Your task to perform on an android device: see tabs open on other devices in the chrome app Image 0: 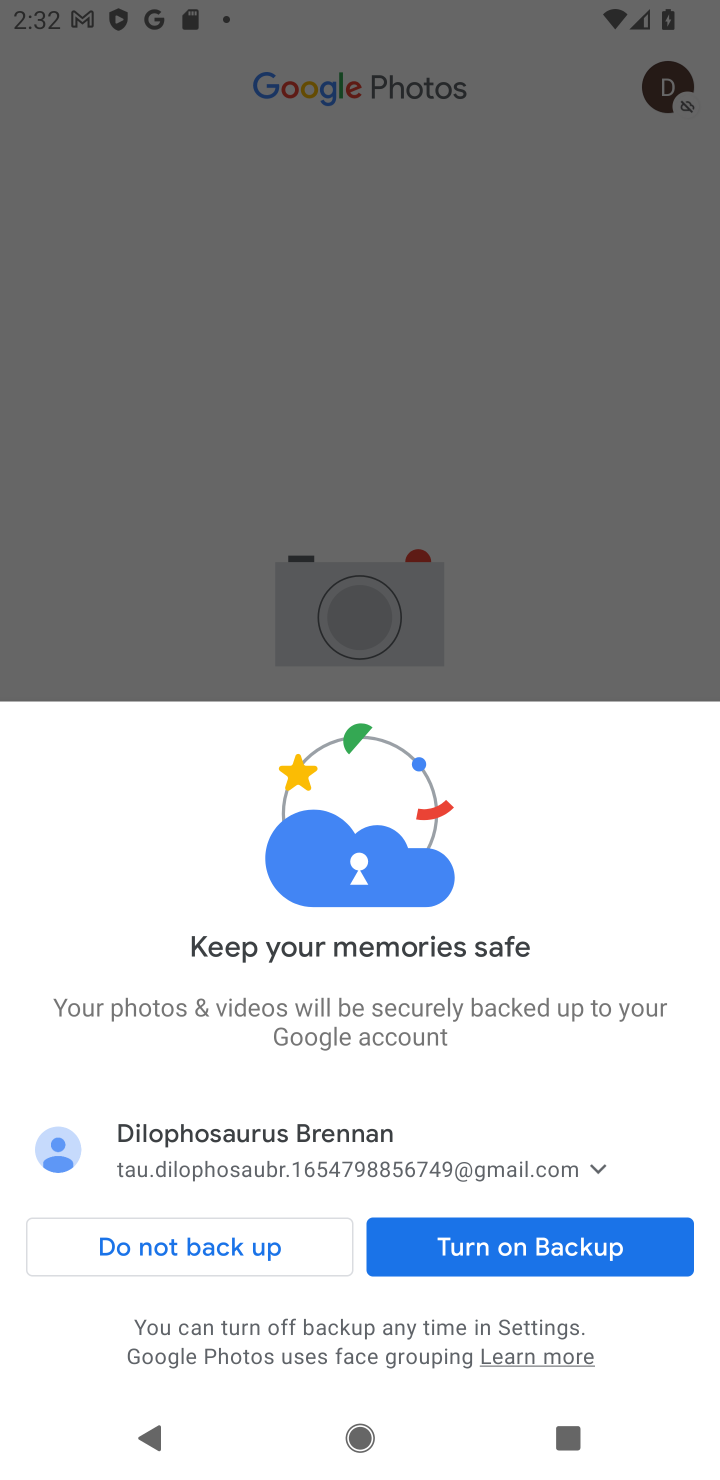
Step 0: press home button
Your task to perform on an android device: see tabs open on other devices in the chrome app Image 1: 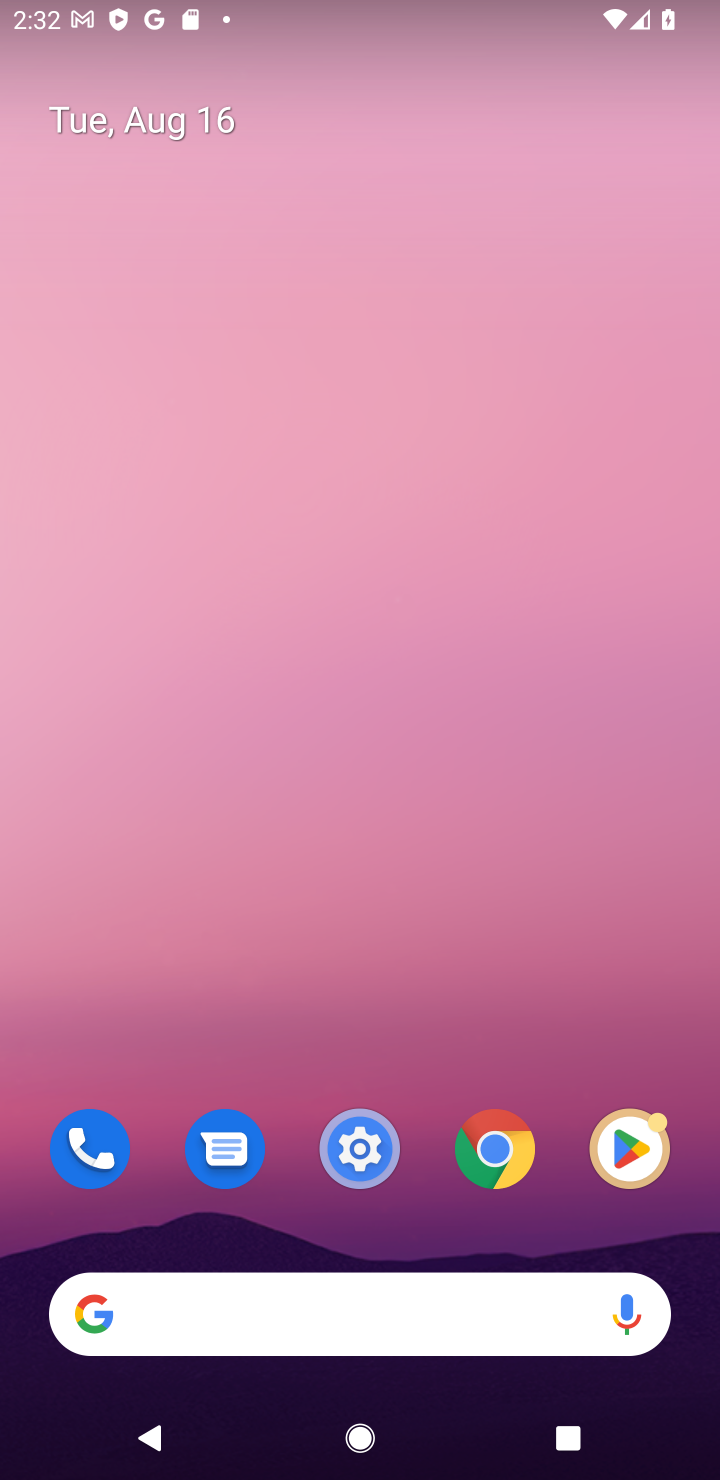
Step 1: click (502, 1143)
Your task to perform on an android device: see tabs open on other devices in the chrome app Image 2: 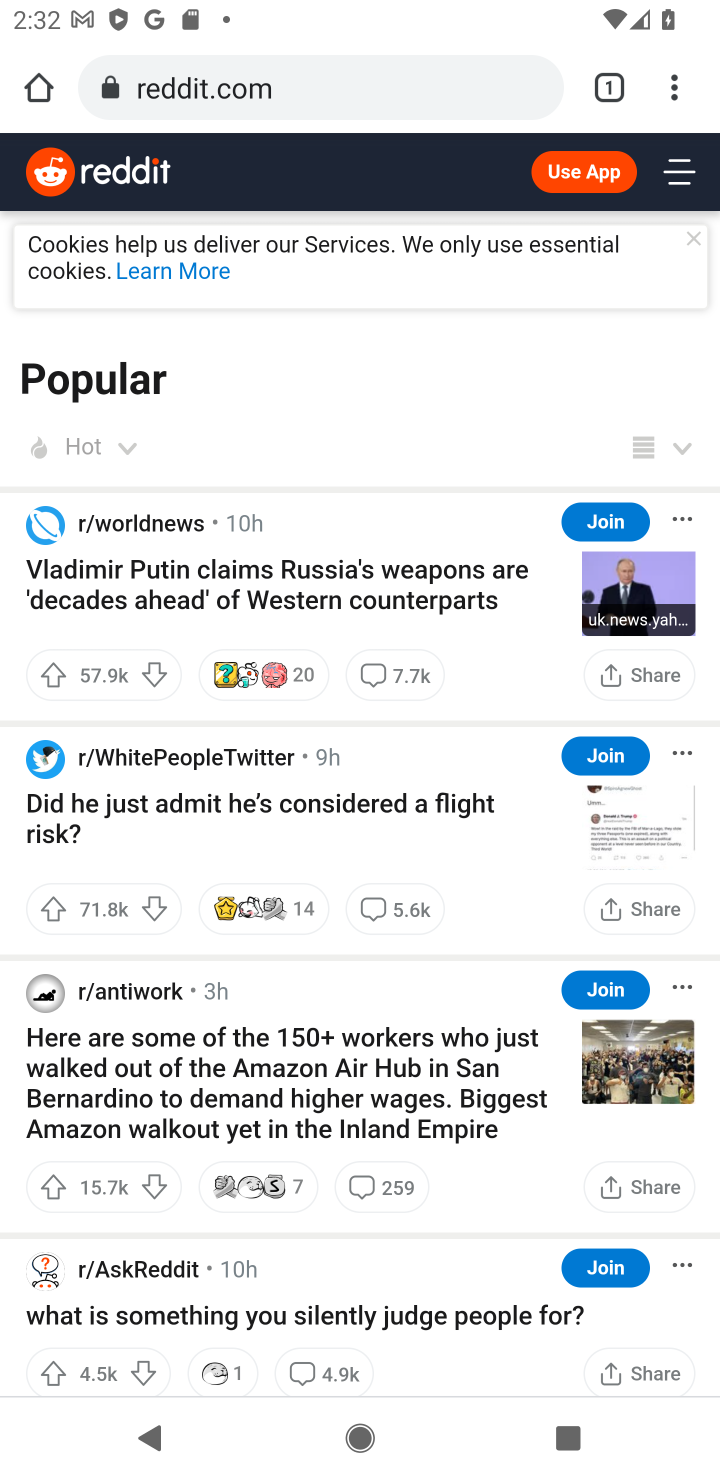
Step 2: click (671, 90)
Your task to perform on an android device: see tabs open on other devices in the chrome app Image 3: 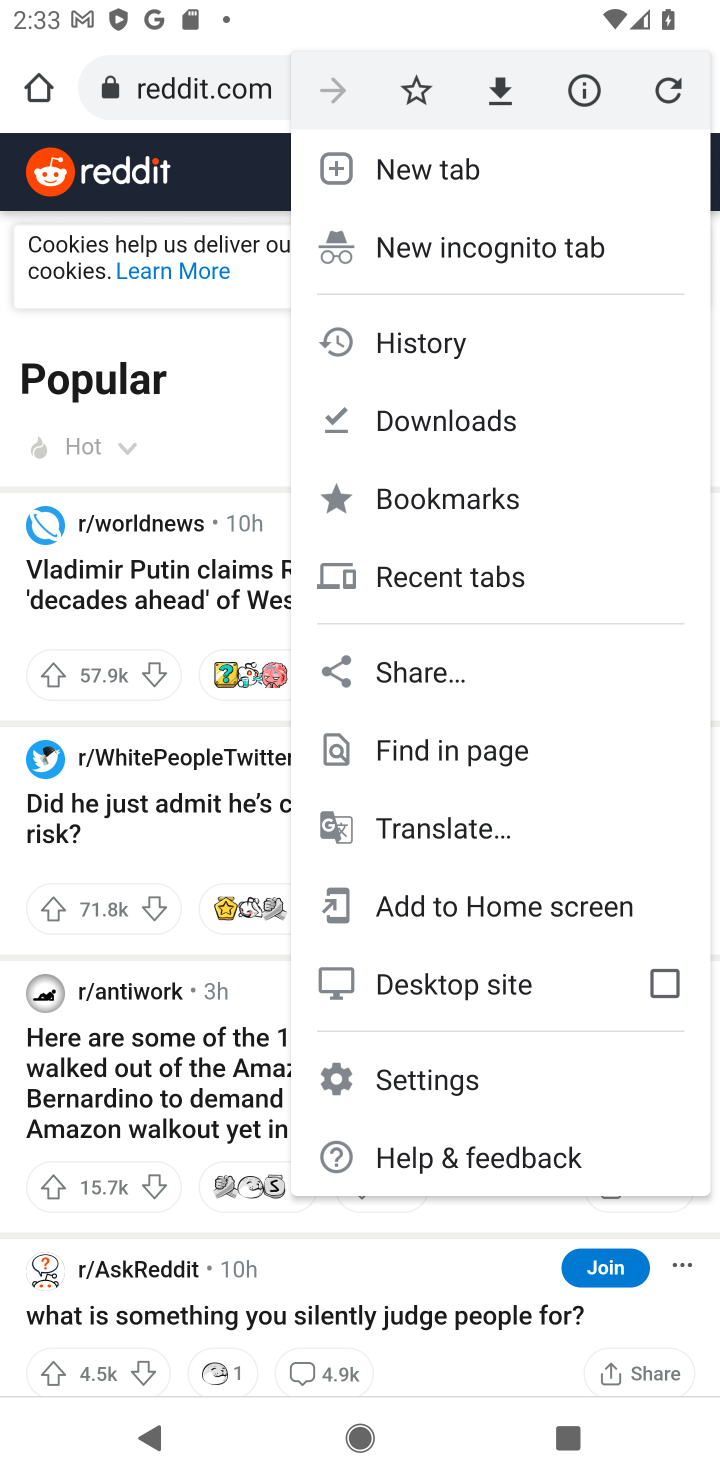
Step 3: click (440, 575)
Your task to perform on an android device: see tabs open on other devices in the chrome app Image 4: 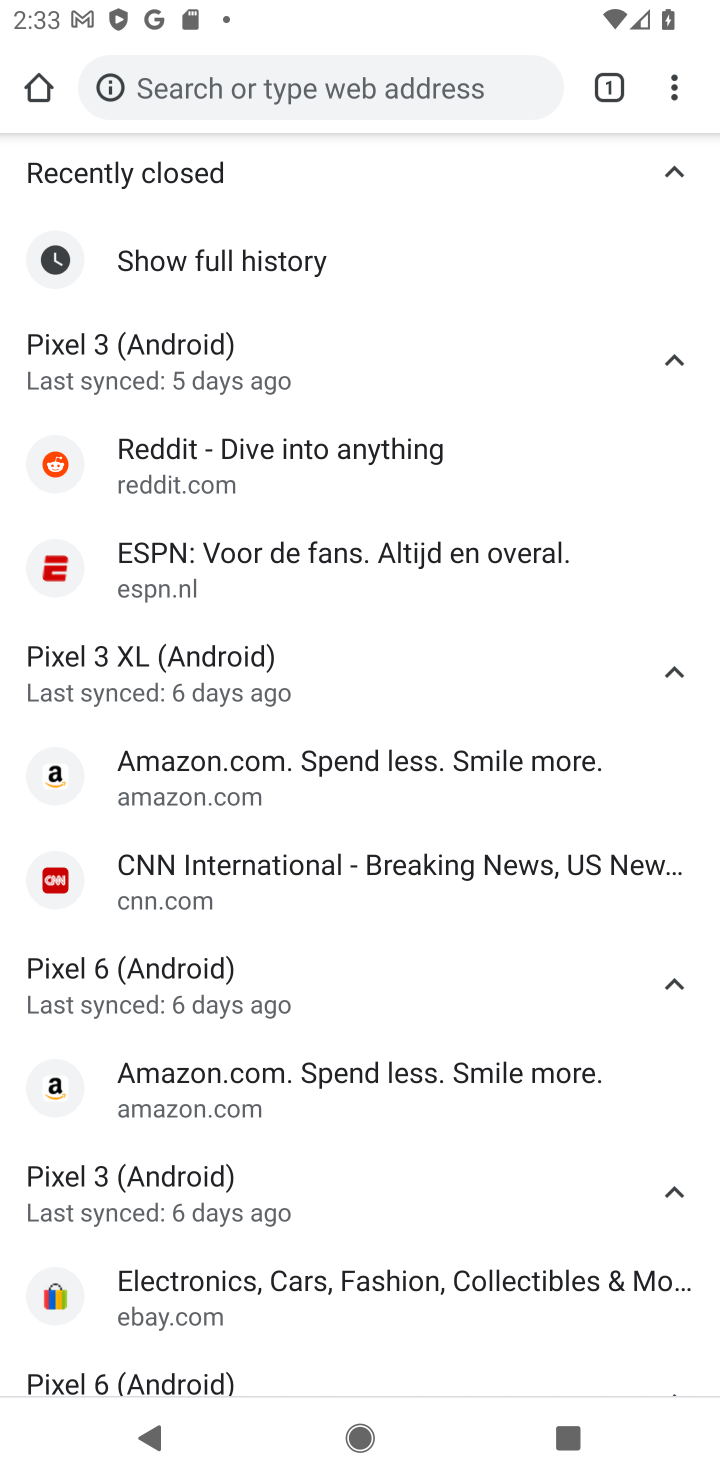
Step 4: task complete